Your task to perform on an android device: Go to wifi settings Image 0: 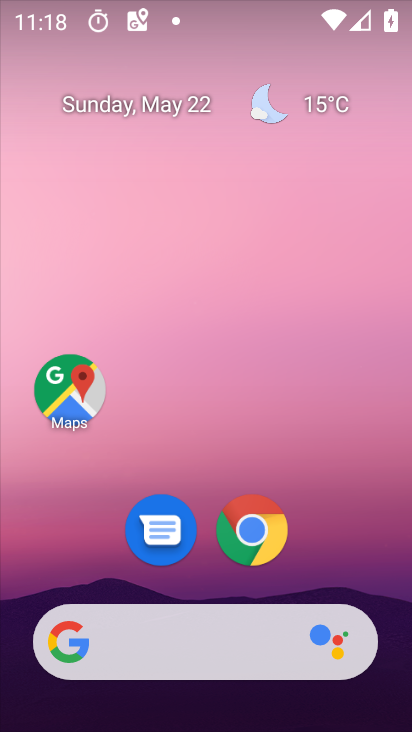
Step 0: drag from (401, 682) to (368, 200)
Your task to perform on an android device: Go to wifi settings Image 1: 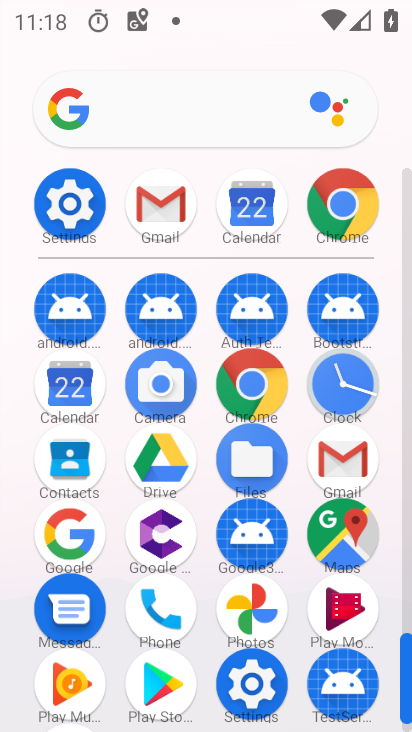
Step 1: click (64, 208)
Your task to perform on an android device: Go to wifi settings Image 2: 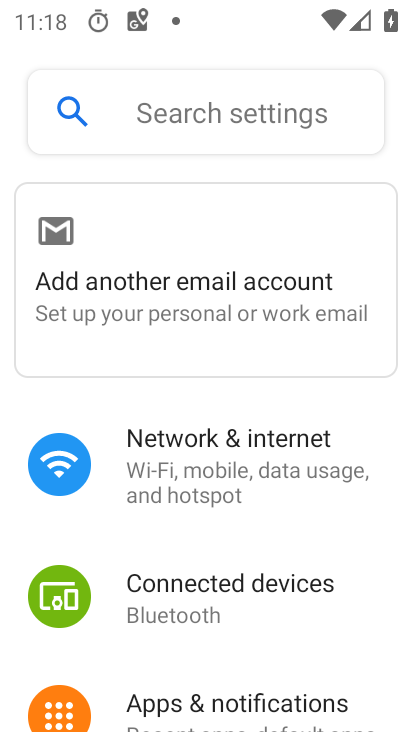
Step 2: click (194, 469)
Your task to perform on an android device: Go to wifi settings Image 3: 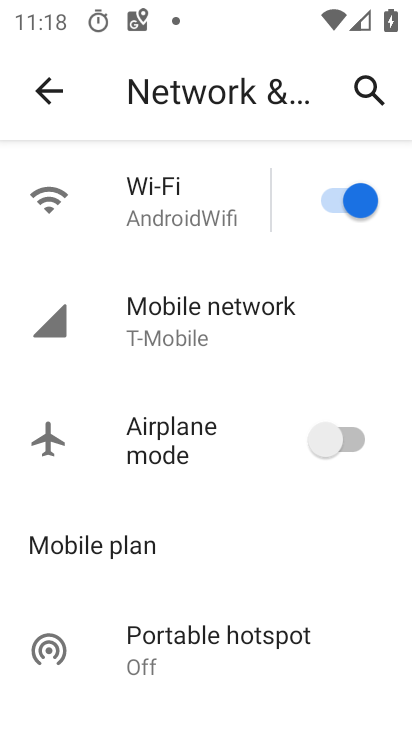
Step 3: click (203, 232)
Your task to perform on an android device: Go to wifi settings Image 4: 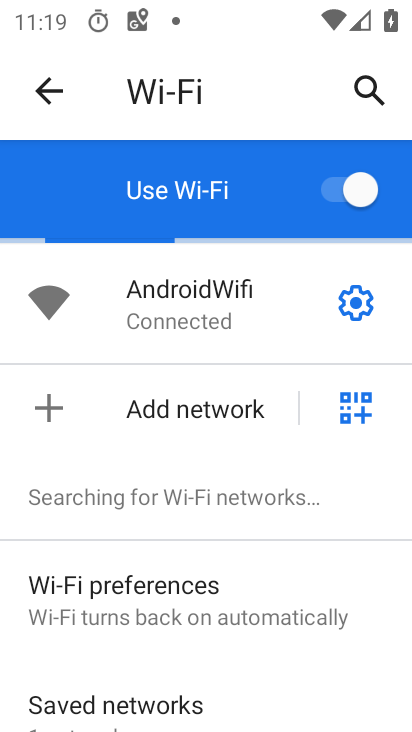
Step 4: click (346, 303)
Your task to perform on an android device: Go to wifi settings Image 5: 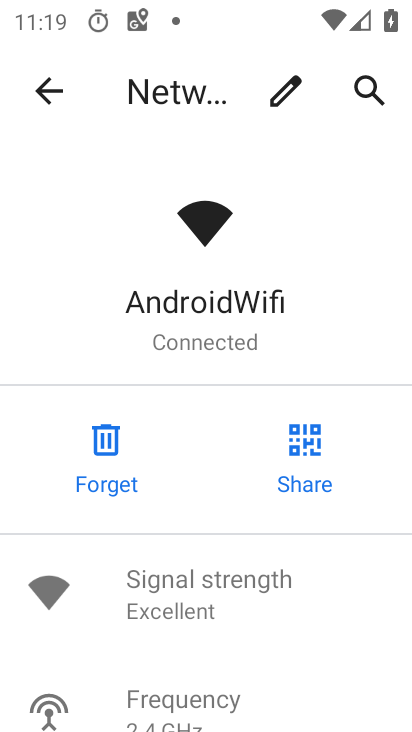
Step 5: task complete